Your task to perform on an android device: Do I have any events today? Image 0: 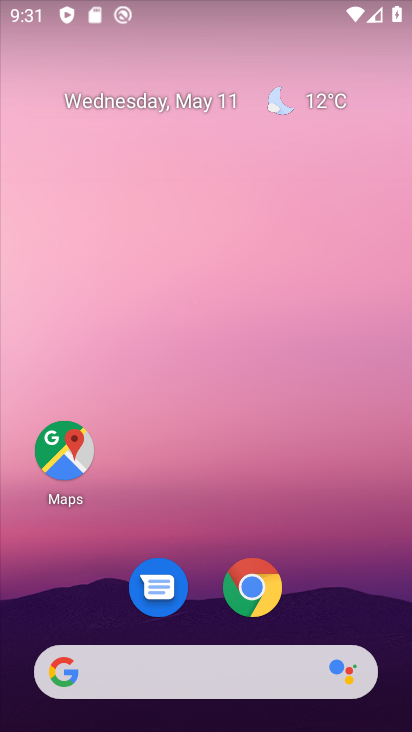
Step 0: drag from (375, 424) to (372, 15)
Your task to perform on an android device: Do I have any events today? Image 1: 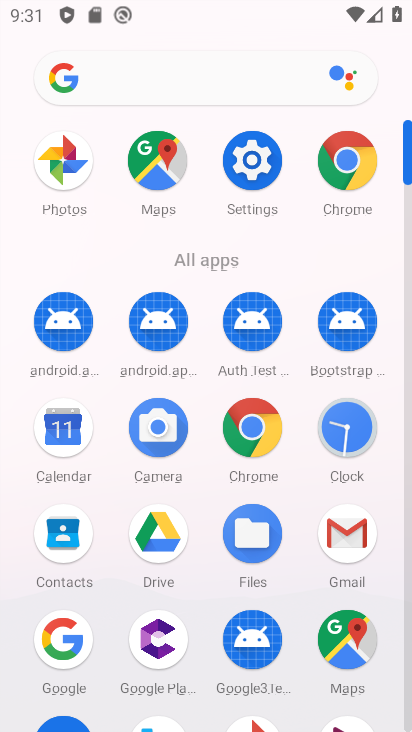
Step 1: click (69, 441)
Your task to perform on an android device: Do I have any events today? Image 2: 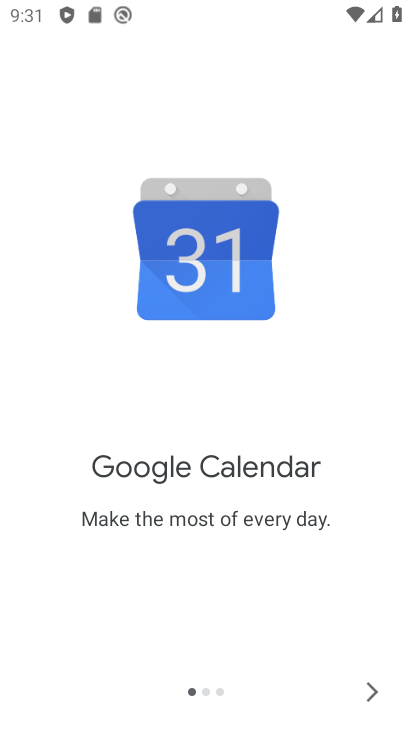
Step 2: click (369, 697)
Your task to perform on an android device: Do I have any events today? Image 3: 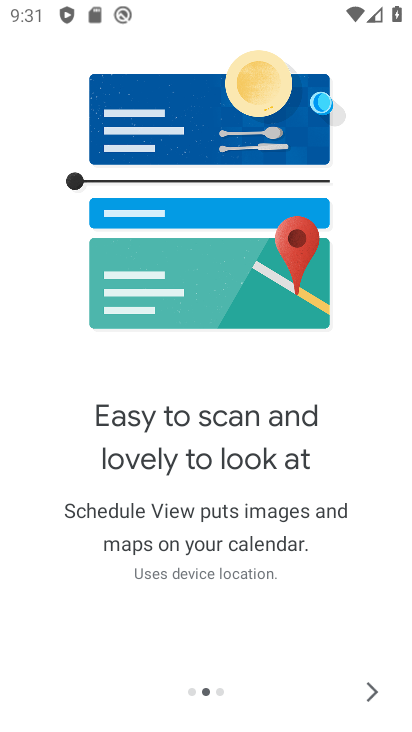
Step 3: click (369, 697)
Your task to perform on an android device: Do I have any events today? Image 4: 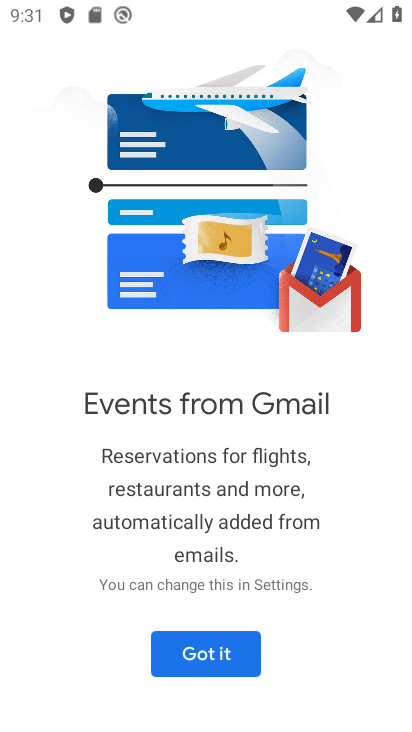
Step 4: click (201, 650)
Your task to perform on an android device: Do I have any events today? Image 5: 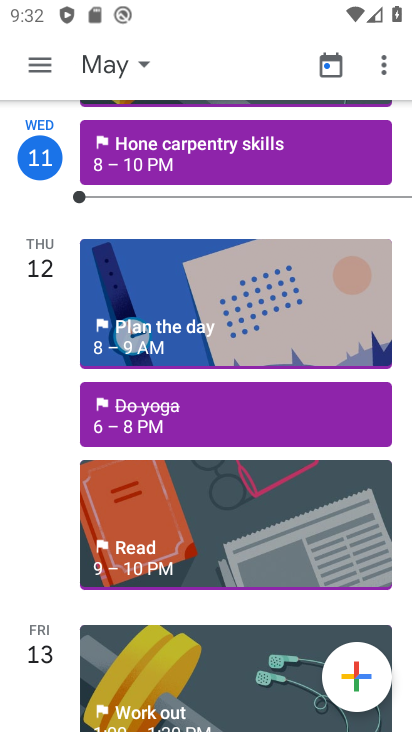
Step 5: drag from (154, 191) to (177, 302)
Your task to perform on an android device: Do I have any events today? Image 6: 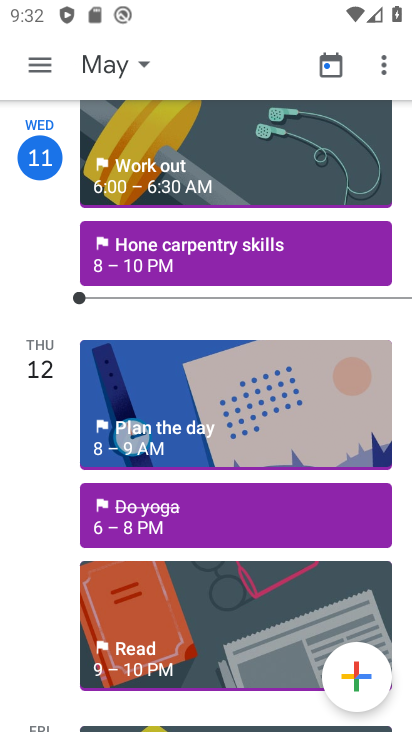
Step 6: click (191, 277)
Your task to perform on an android device: Do I have any events today? Image 7: 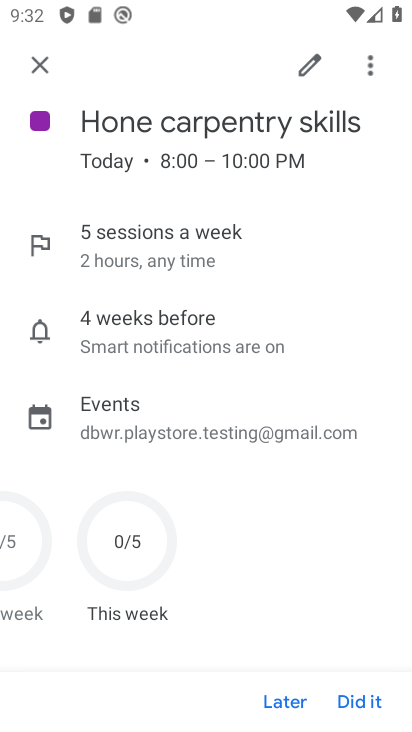
Step 7: task complete